Your task to perform on an android device: Open Reddit.com Image 0: 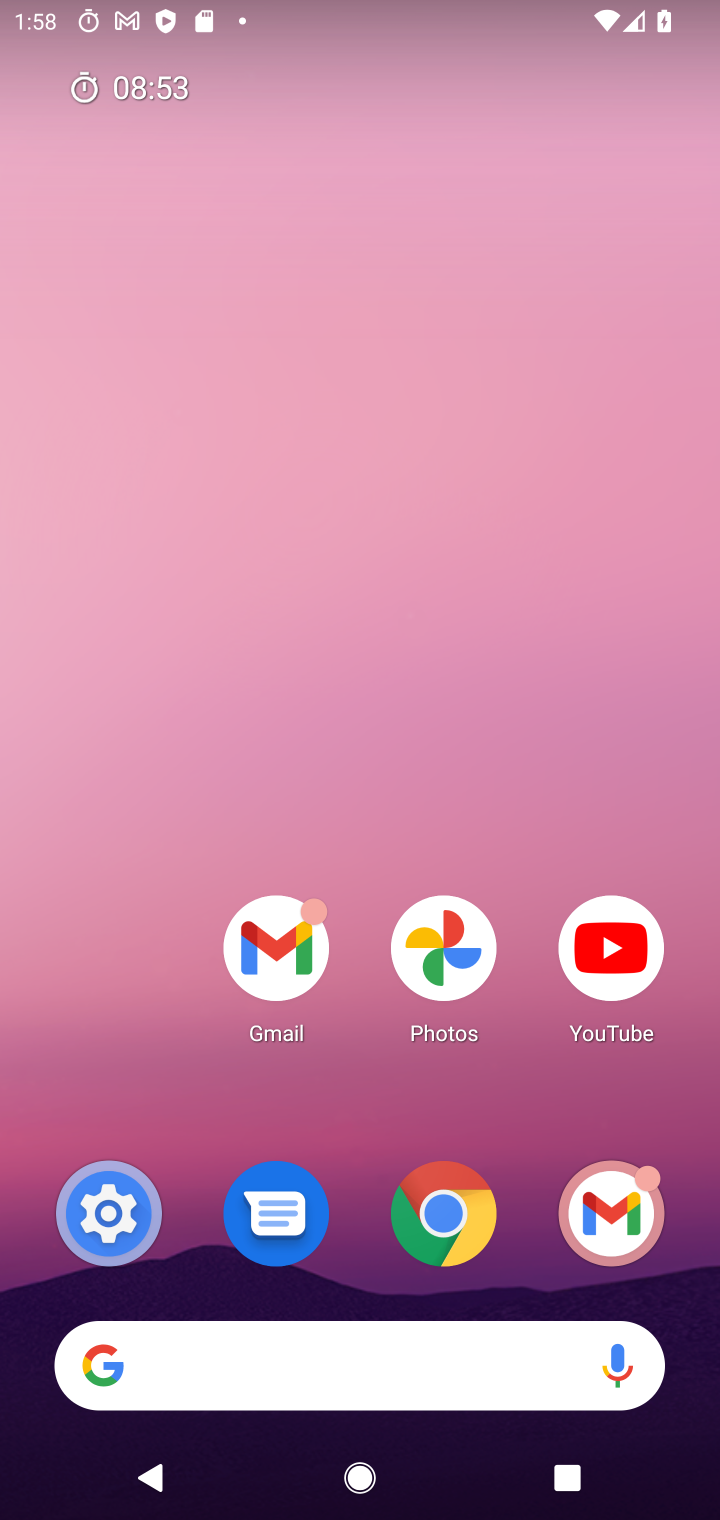
Step 0: drag from (422, 1363) to (596, 10)
Your task to perform on an android device: Open Reddit.com Image 1: 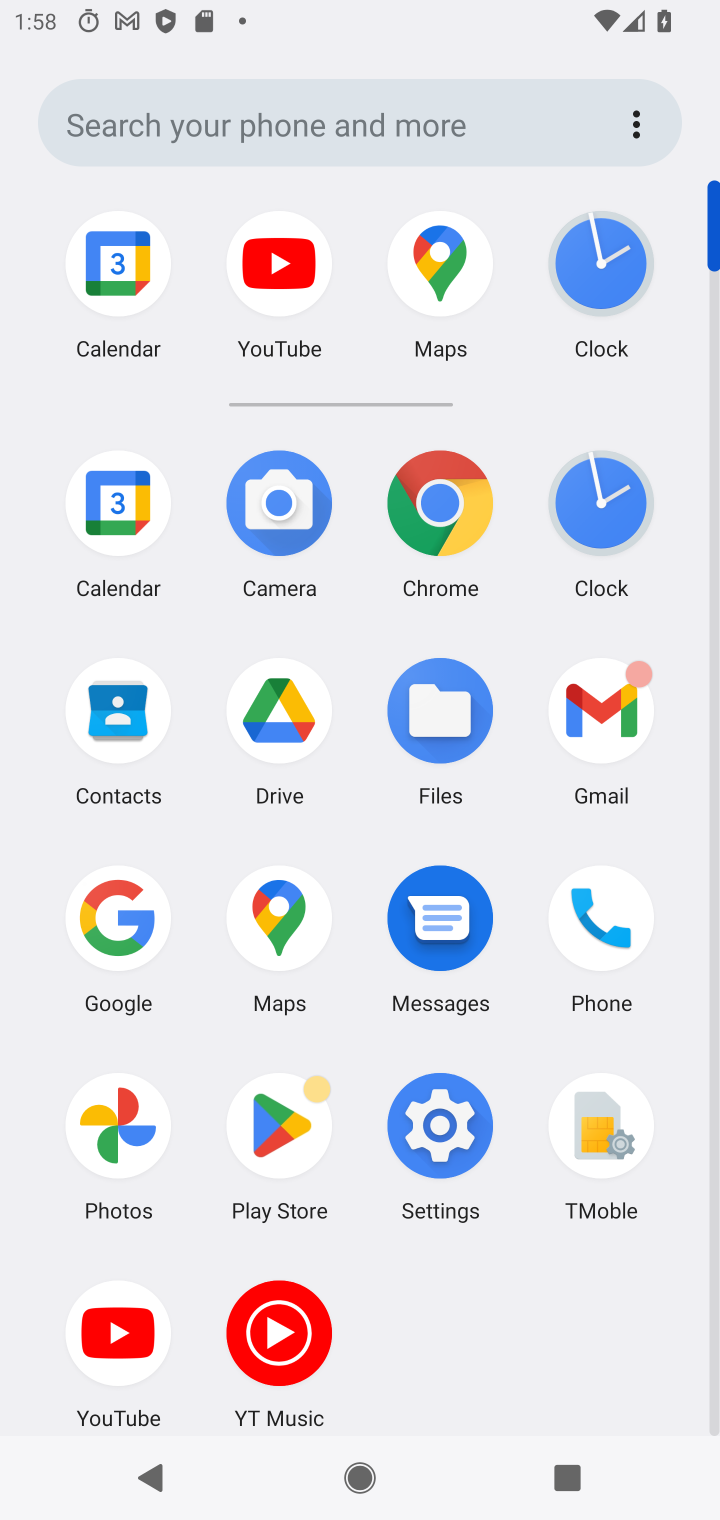
Step 1: click (427, 537)
Your task to perform on an android device: Open Reddit.com Image 2: 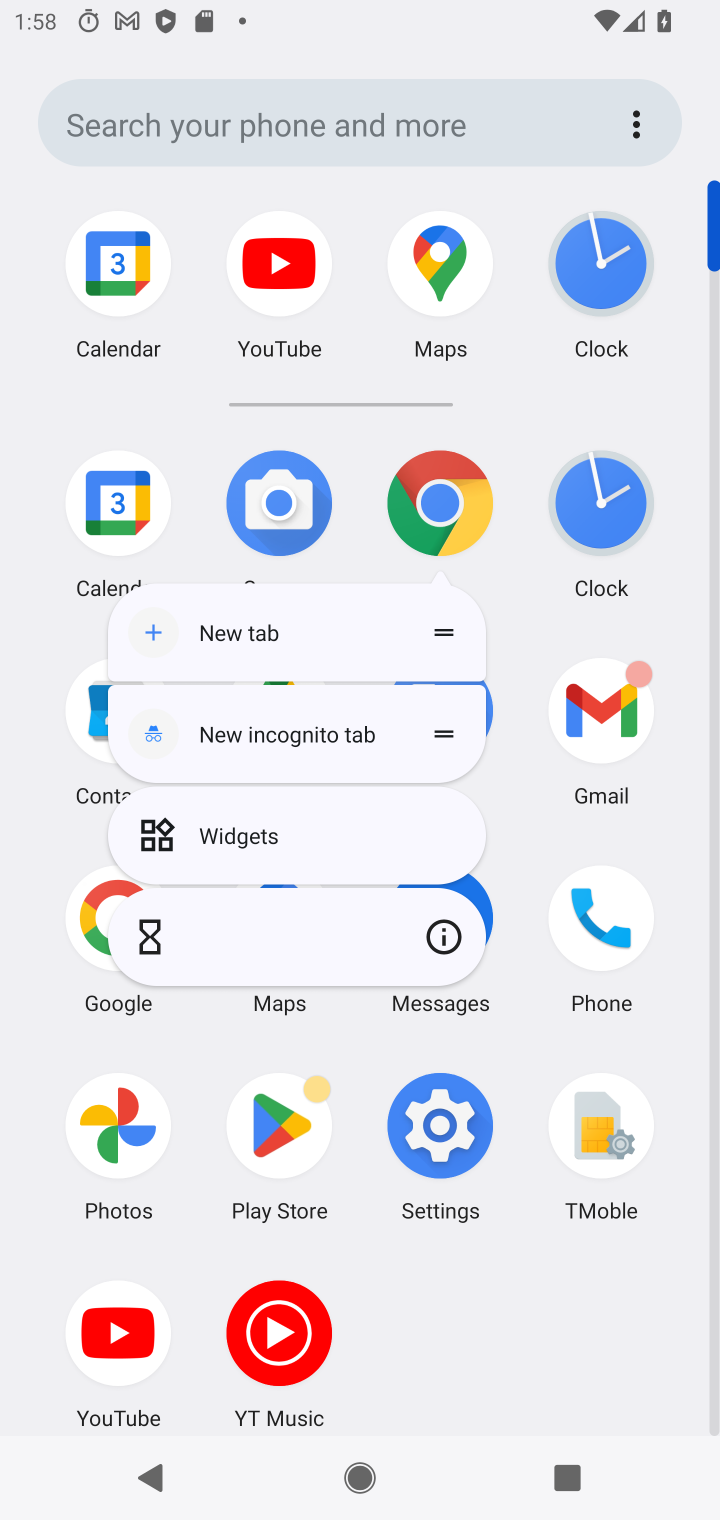
Step 2: click (427, 537)
Your task to perform on an android device: Open Reddit.com Image 3: 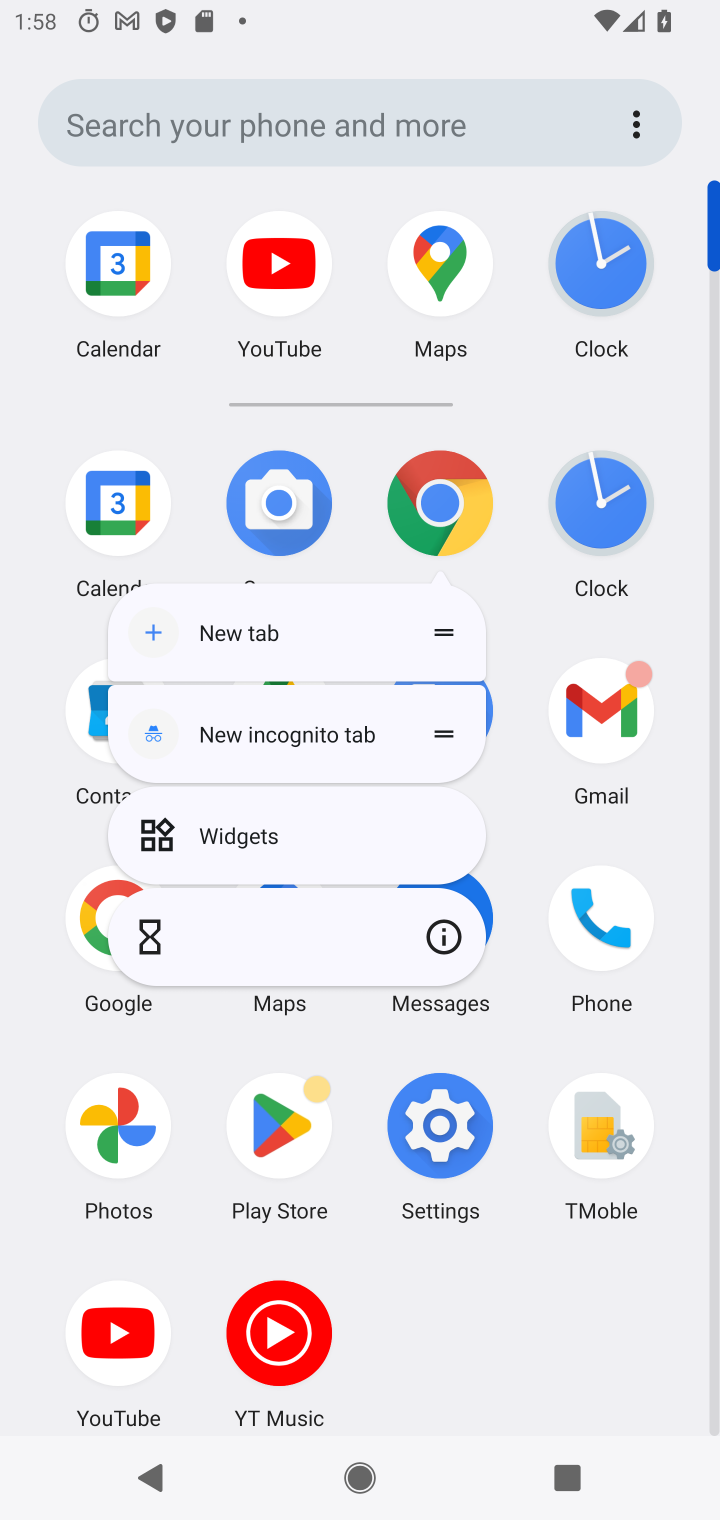
Step 3: click (449, 476)
Your task to perform on an android device: Open Reddit.com Image 4: 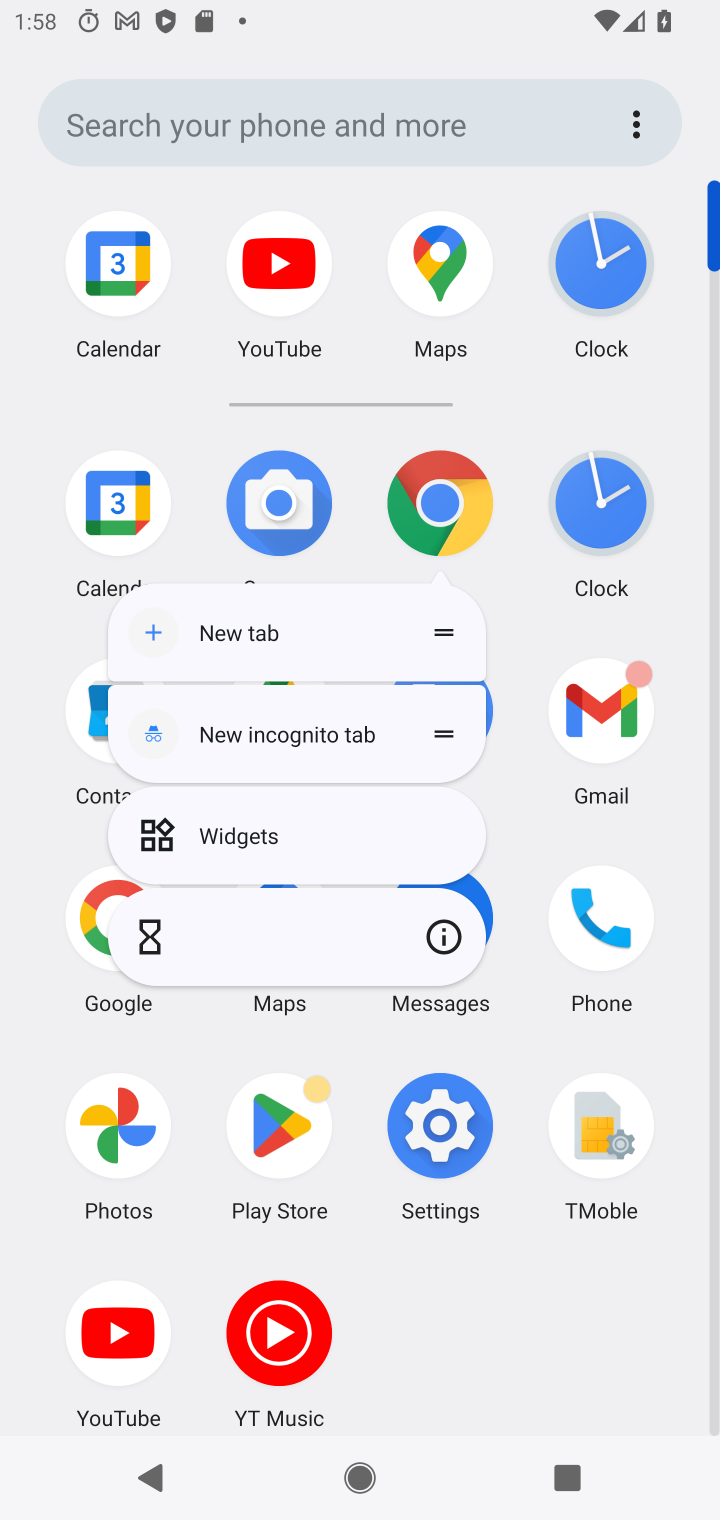
Step 4: click (449, 476)
Your task to perform on an android device: Open Reddit.com Image 5: 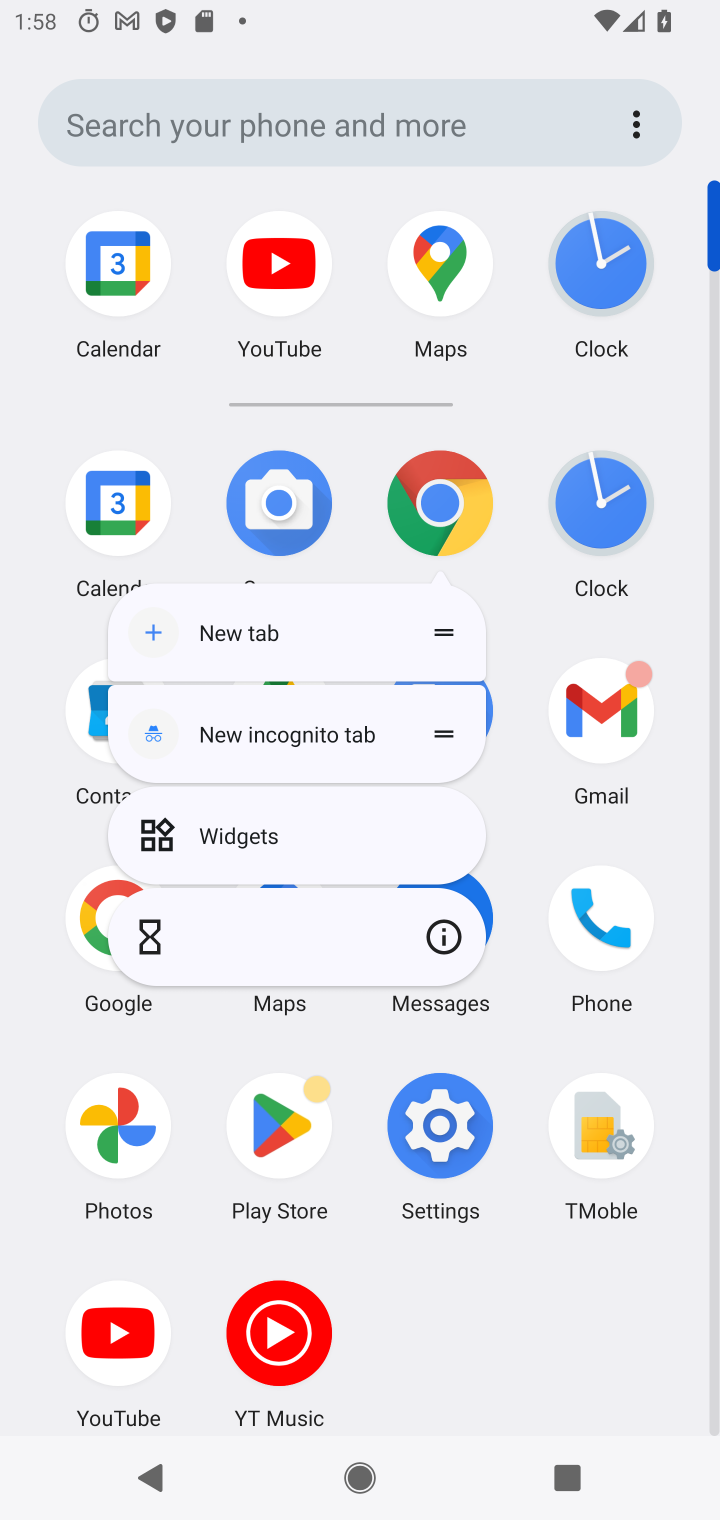
Step 5: click (449, 476)
Your task to perform on an android device: Open Reddit.com Image 6: 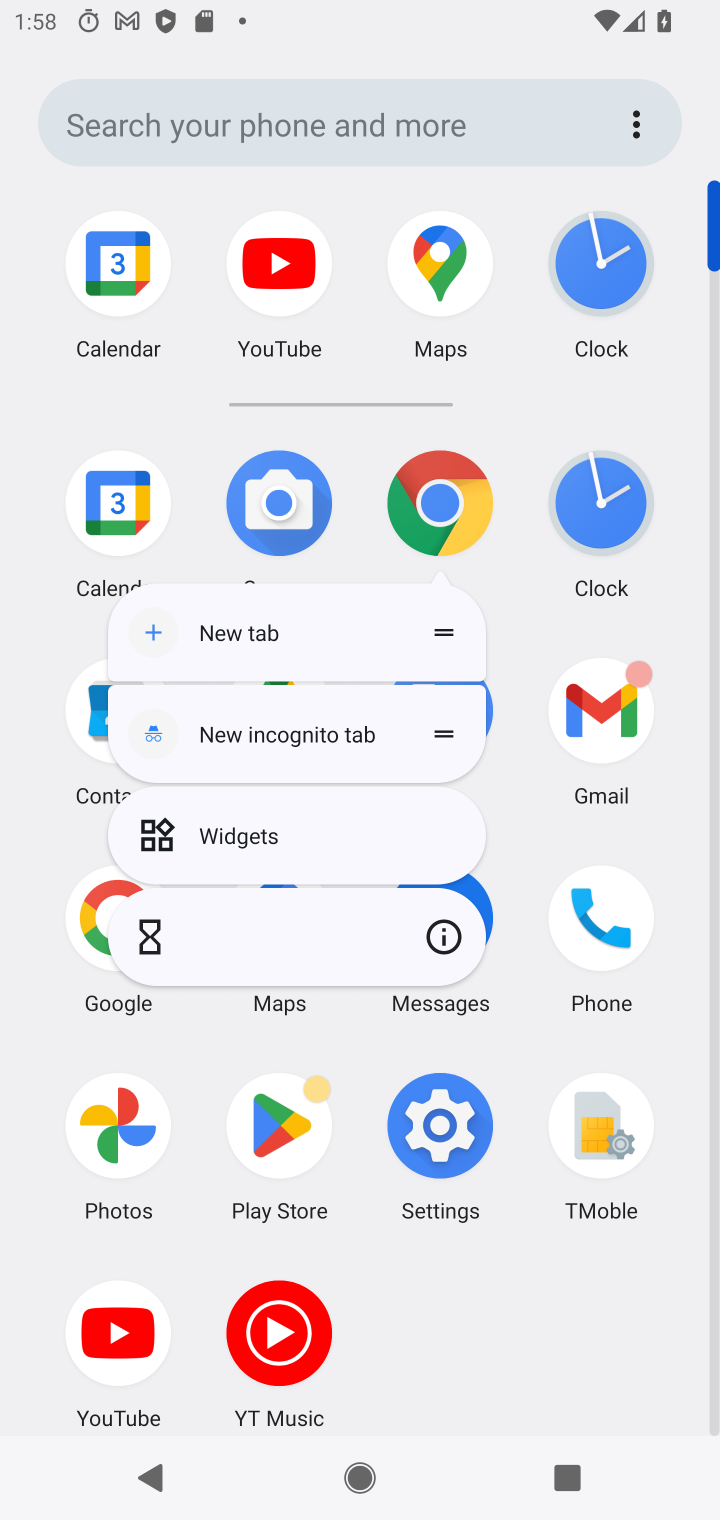
Step 6: click (449, 476)
Your task to perform on an android device: Open Reddit.com Image 7: 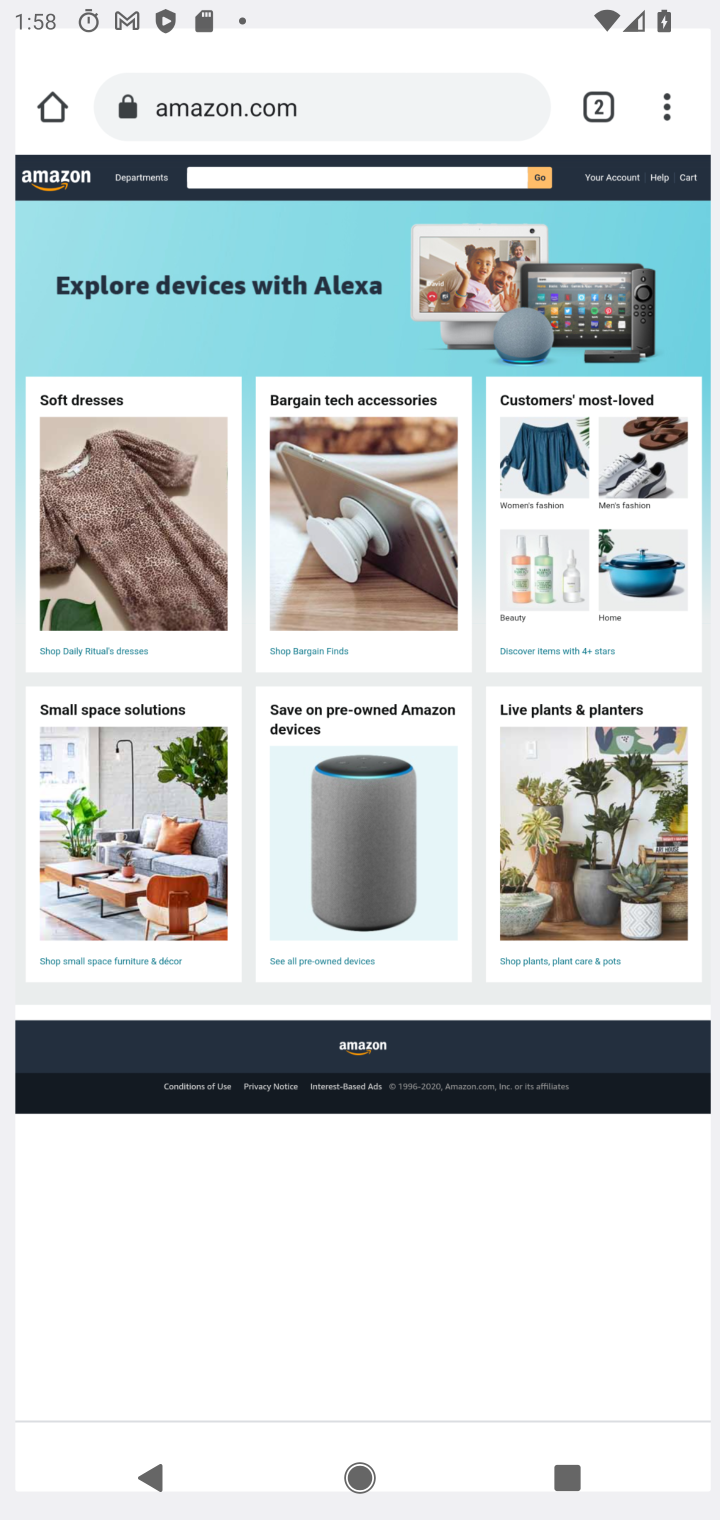
Step 7: click (442, 507)
Your task to perform on an android device: Open Reddit.com Image 8: 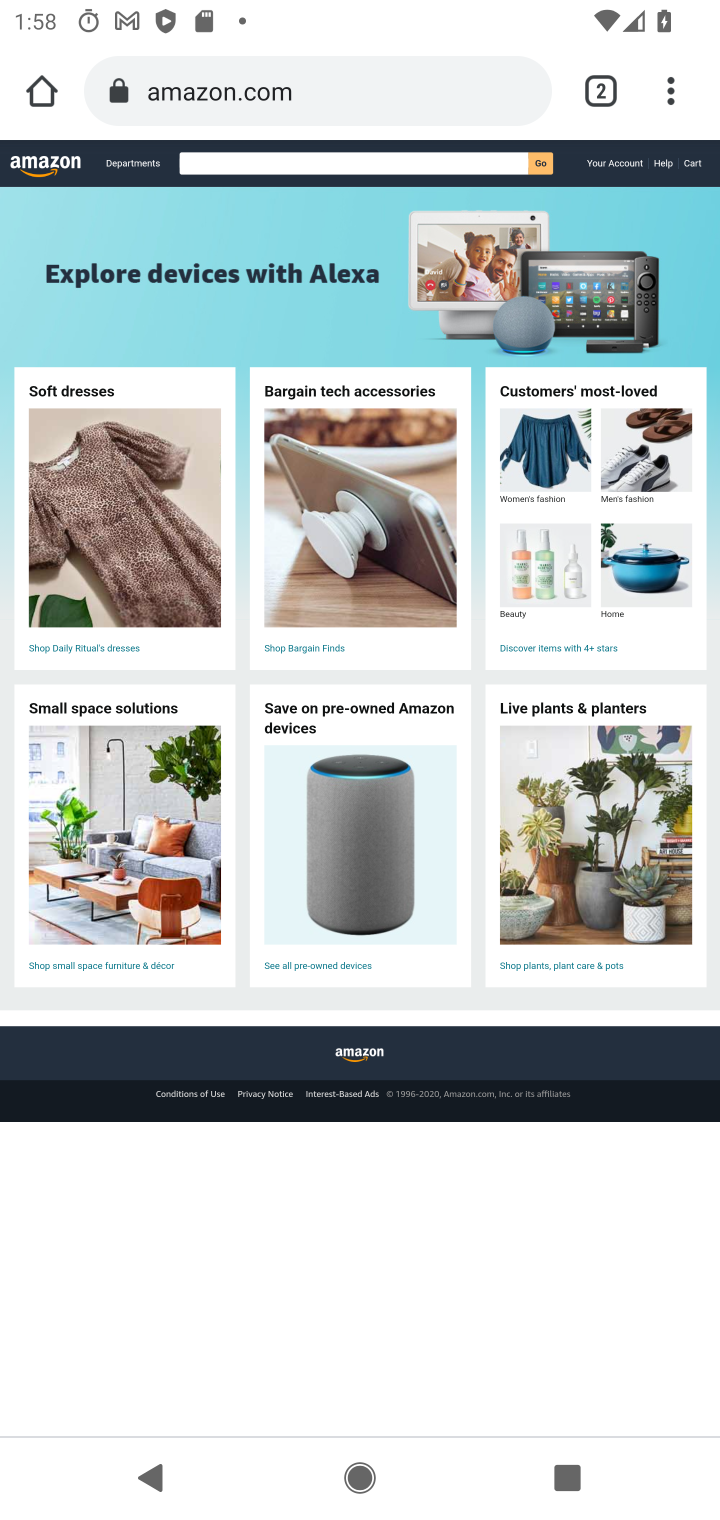
Step 8: drag from (673, 95) to (410, 291)
Your task to perform on an android device: Open Reddit.com Image 9: 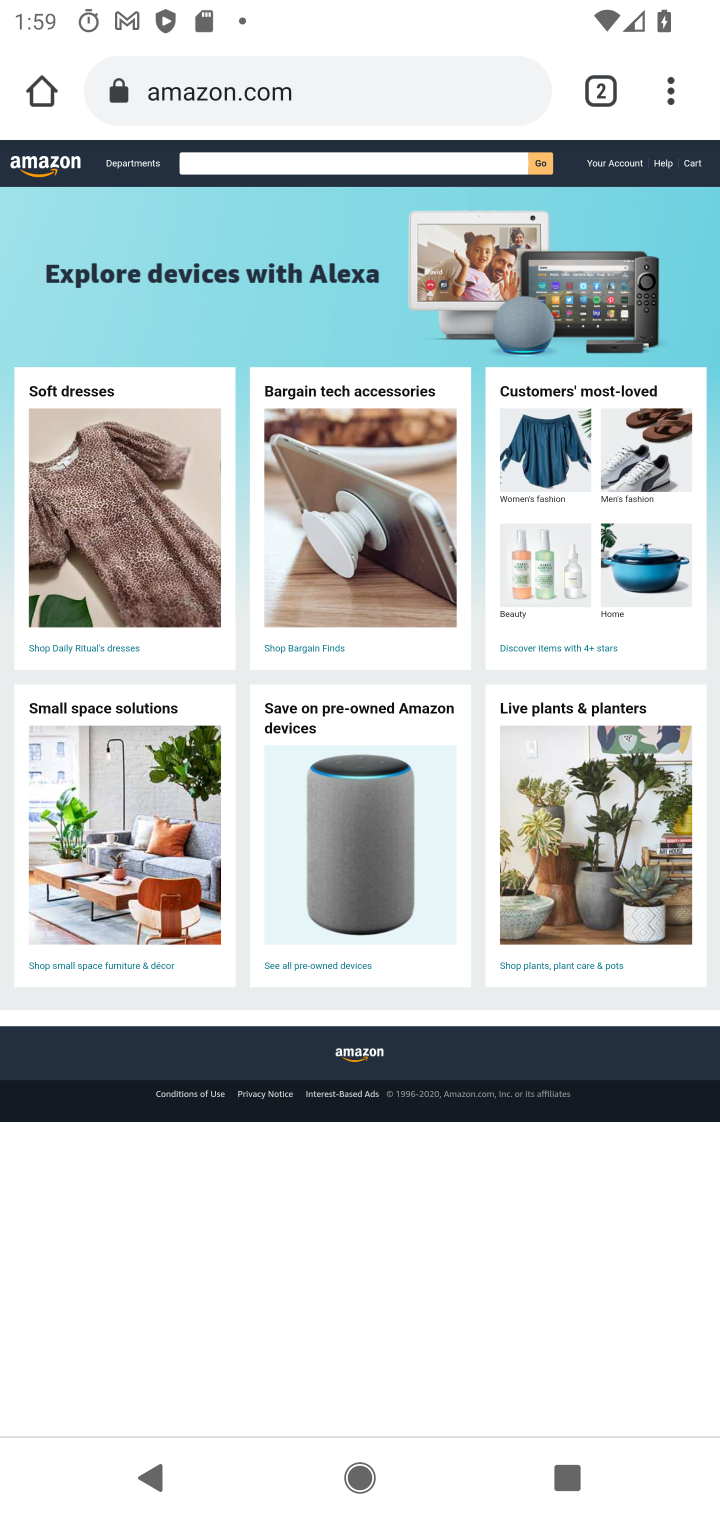
Step 9: click (410, 291)
Your task to perform on an android device: Open Reddit.com Image 10: 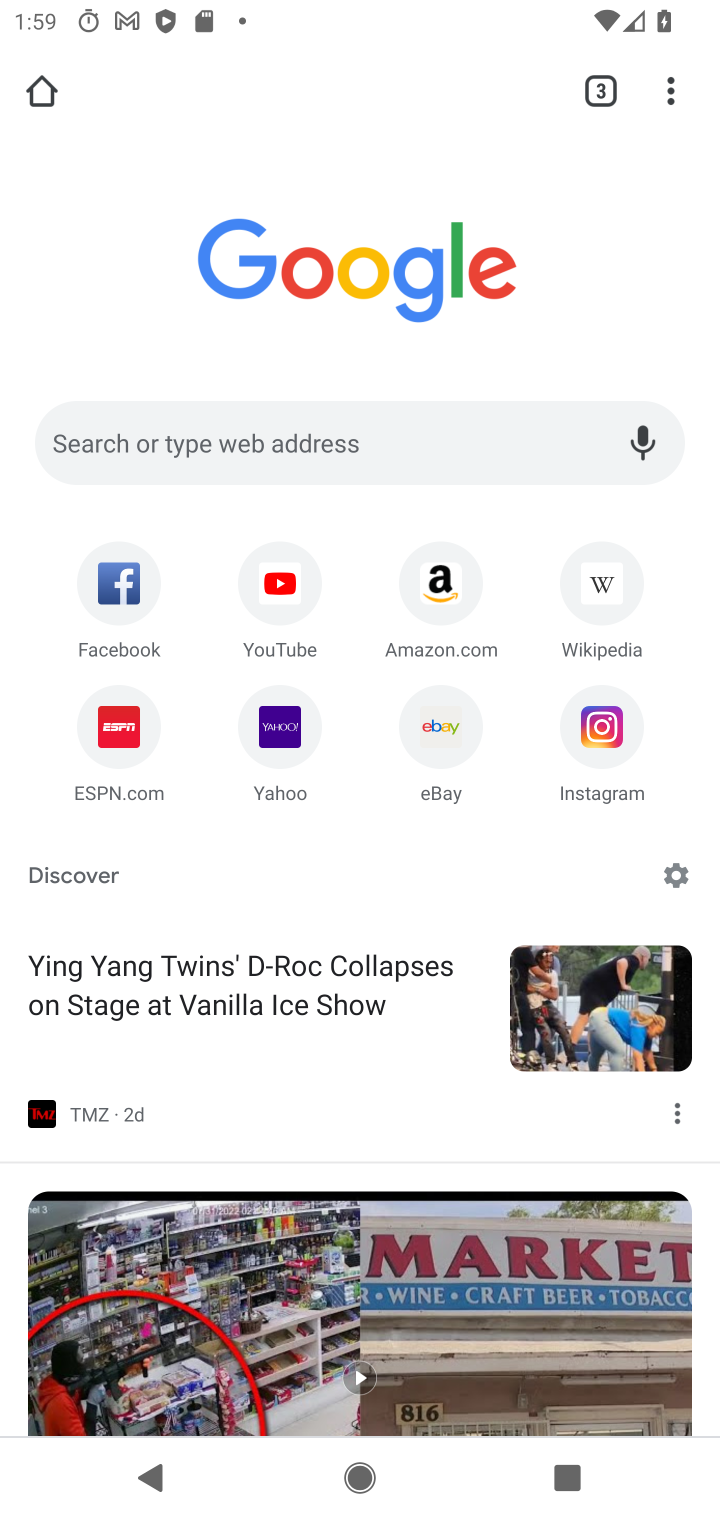
Step 10: click (415, 416)
Your task to perform on an android device: Open Reddit.com Image 11: 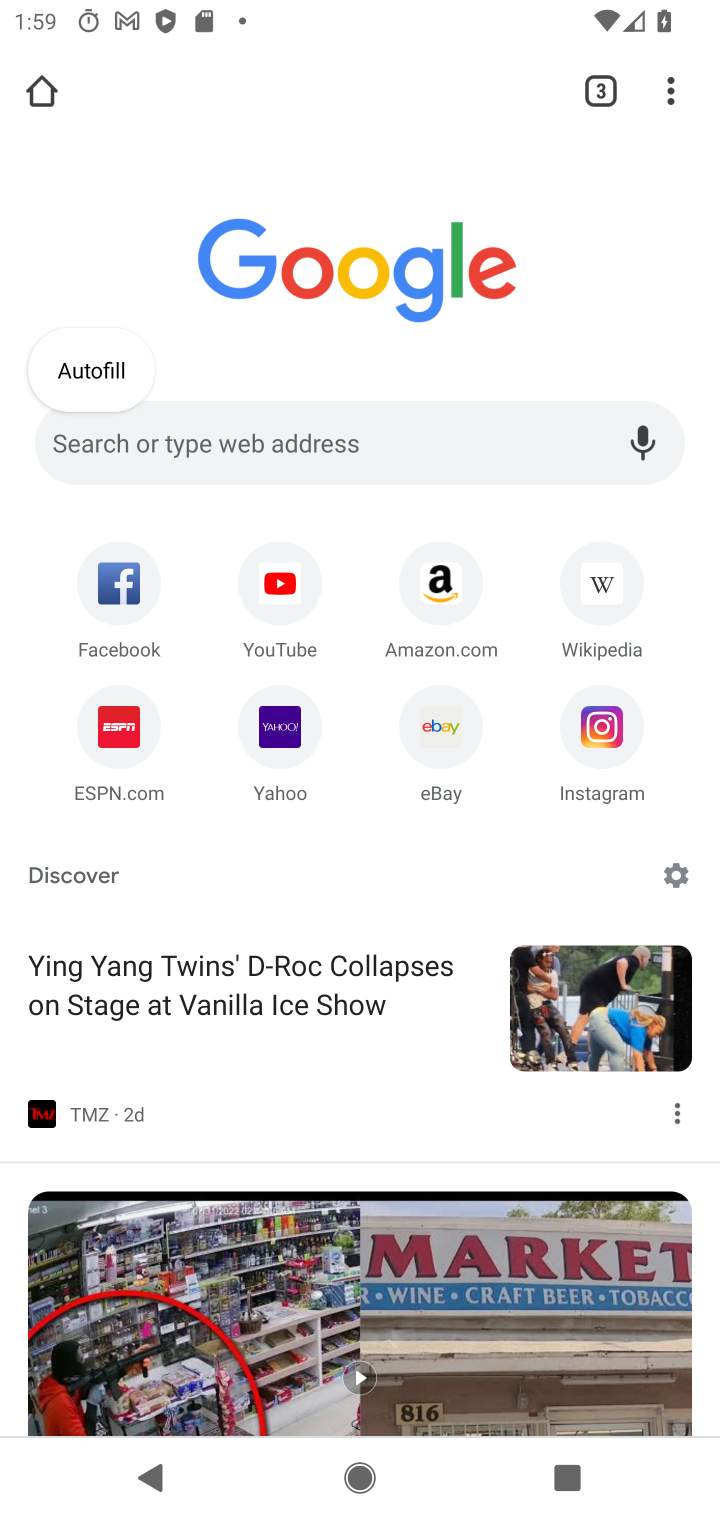
Step 11: type "reddit.com"
Your task to perform on an android device: Open Reddit.com Image 12: 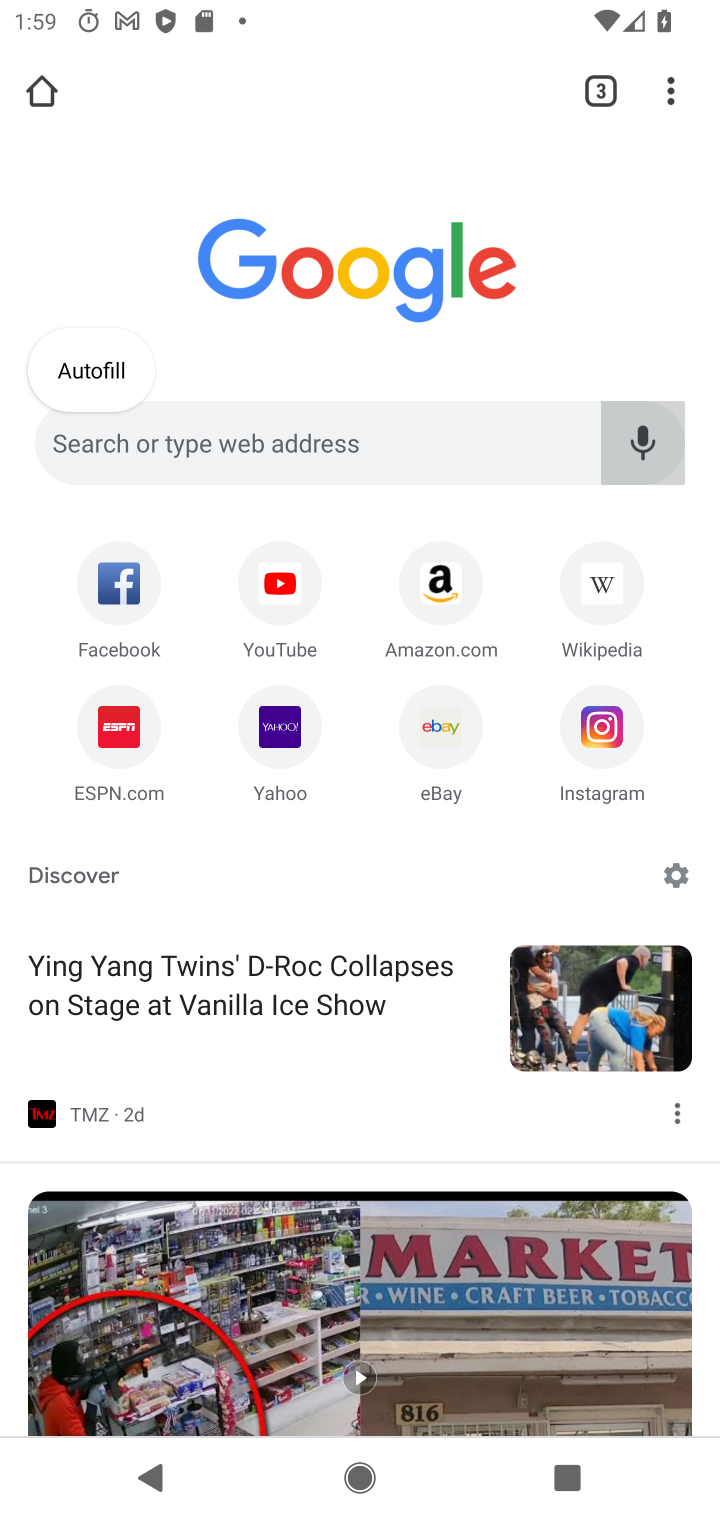
Step 12: click (391, 439)
Your task to perform on an android device: Open Reddit.com Image 13: 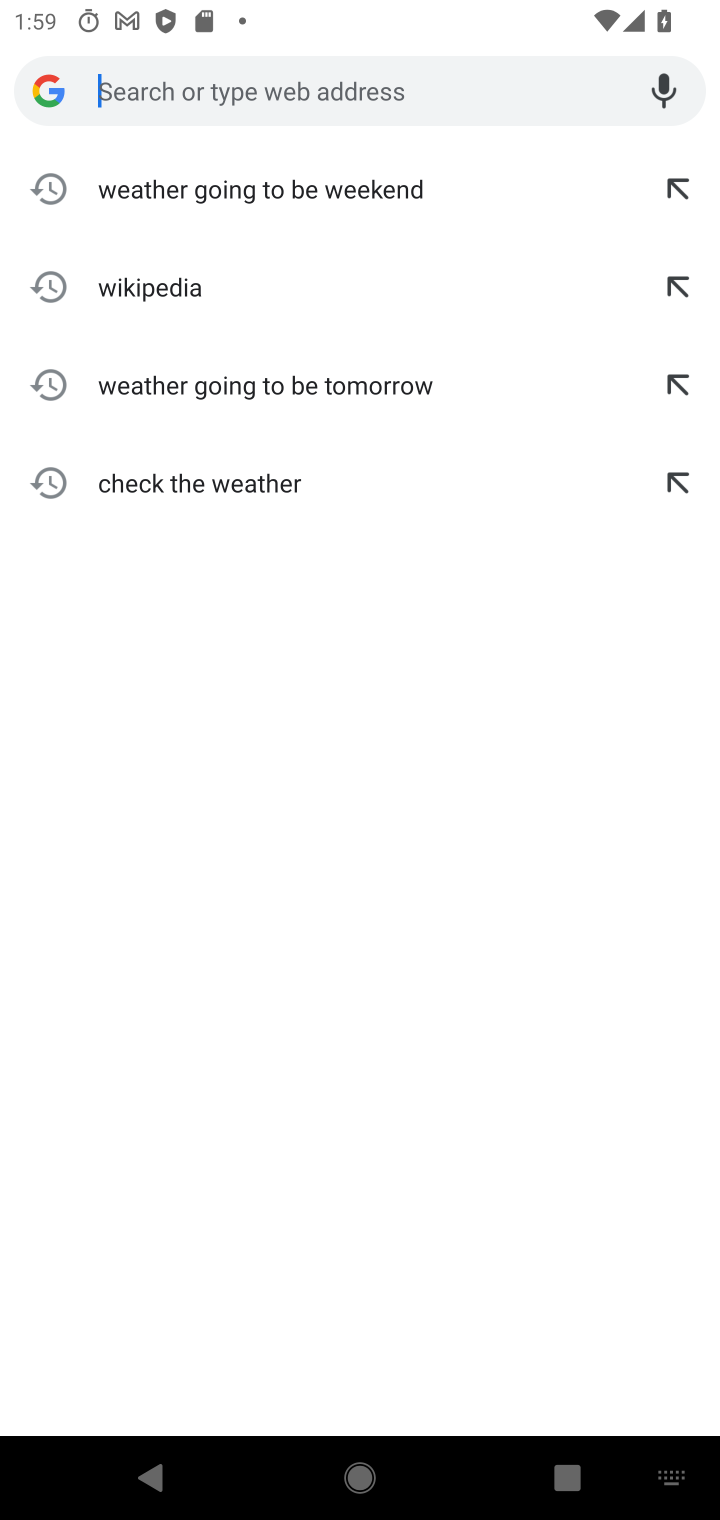
Step 13: type "reddit.com"
Your task to perform on an android device: Open Reddit.com Image 14: 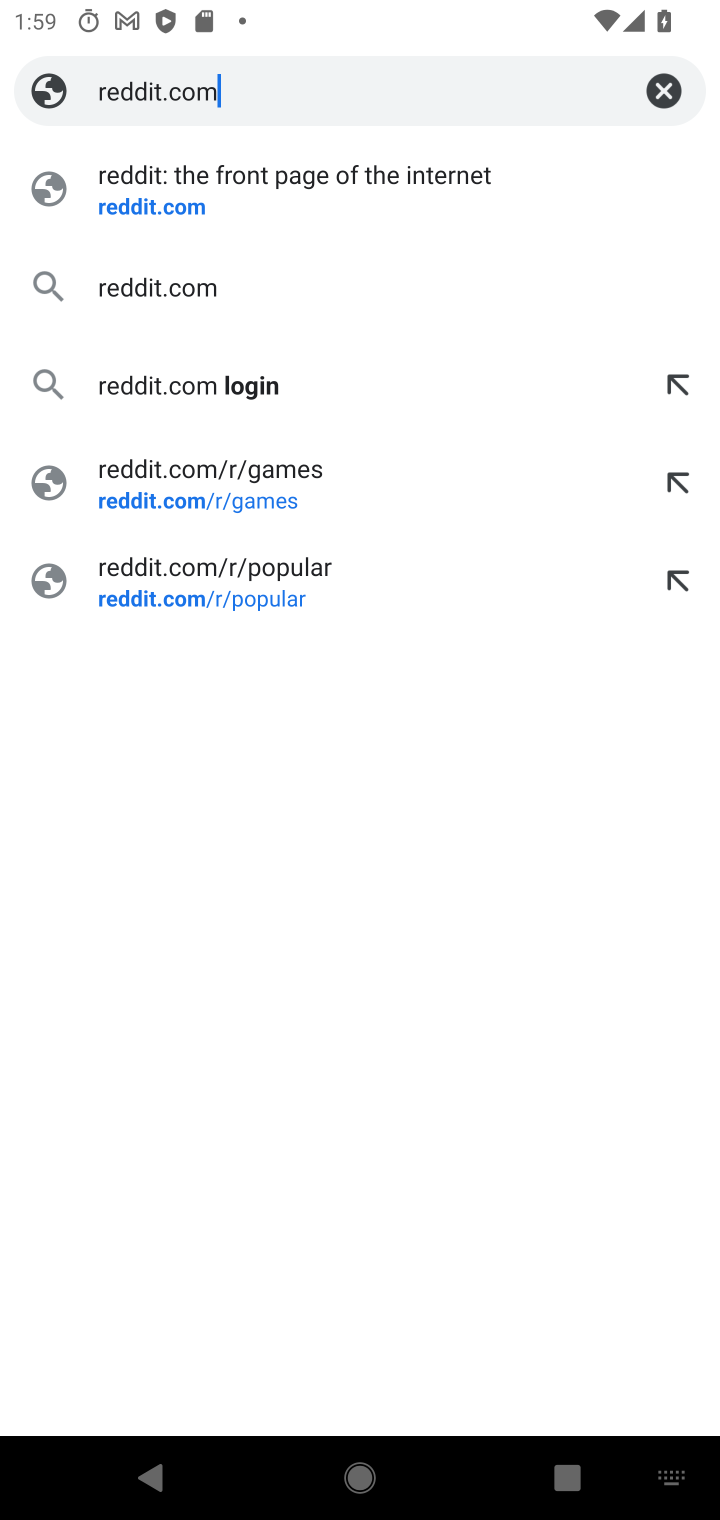
Step 14: click (209, 169)
Your task to perform on an android device: Open Reddit.com Image 15: 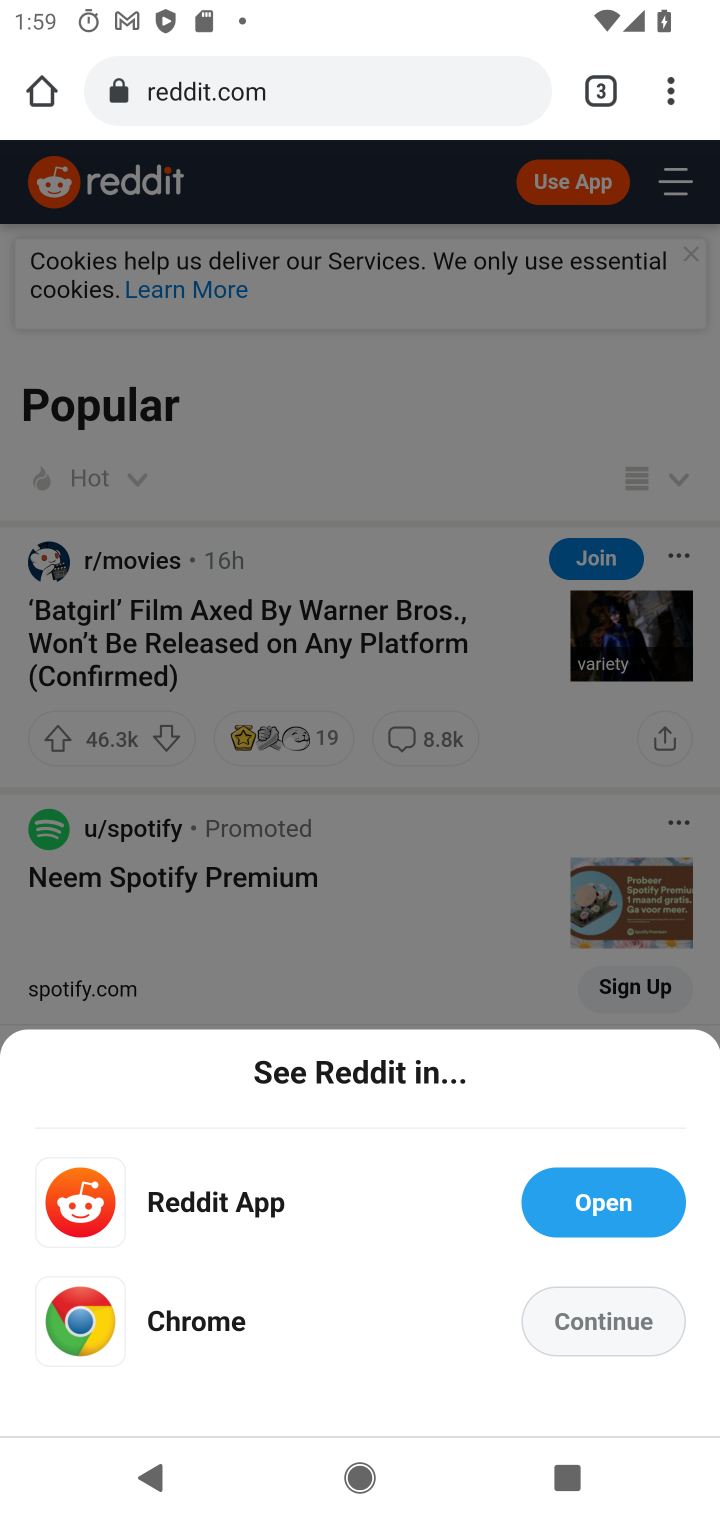
Step 15: task complete